Your task to perform on an android device: See recent photos Image 0: 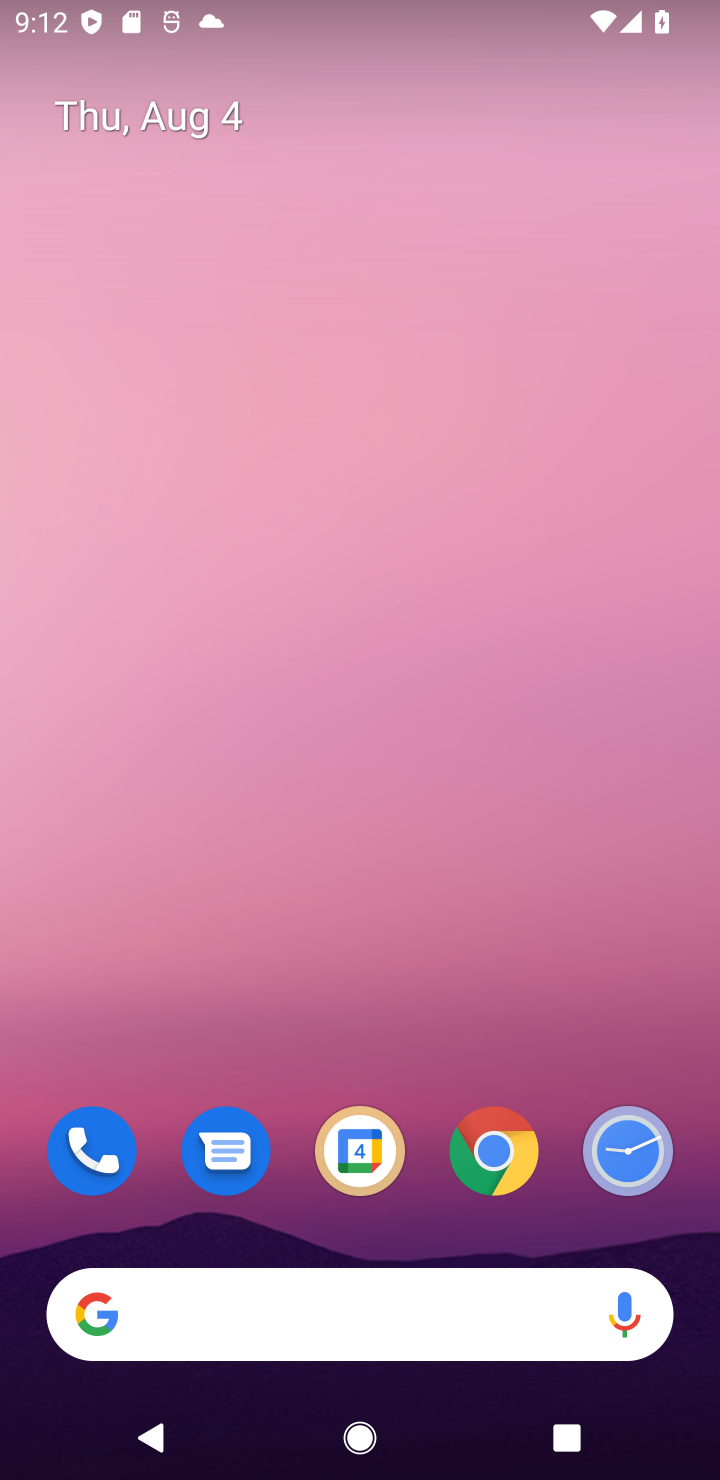
Step 0: drag from (444, 841) to (452, 25)
Your task to perform on an android device: See recent photos Image 1: 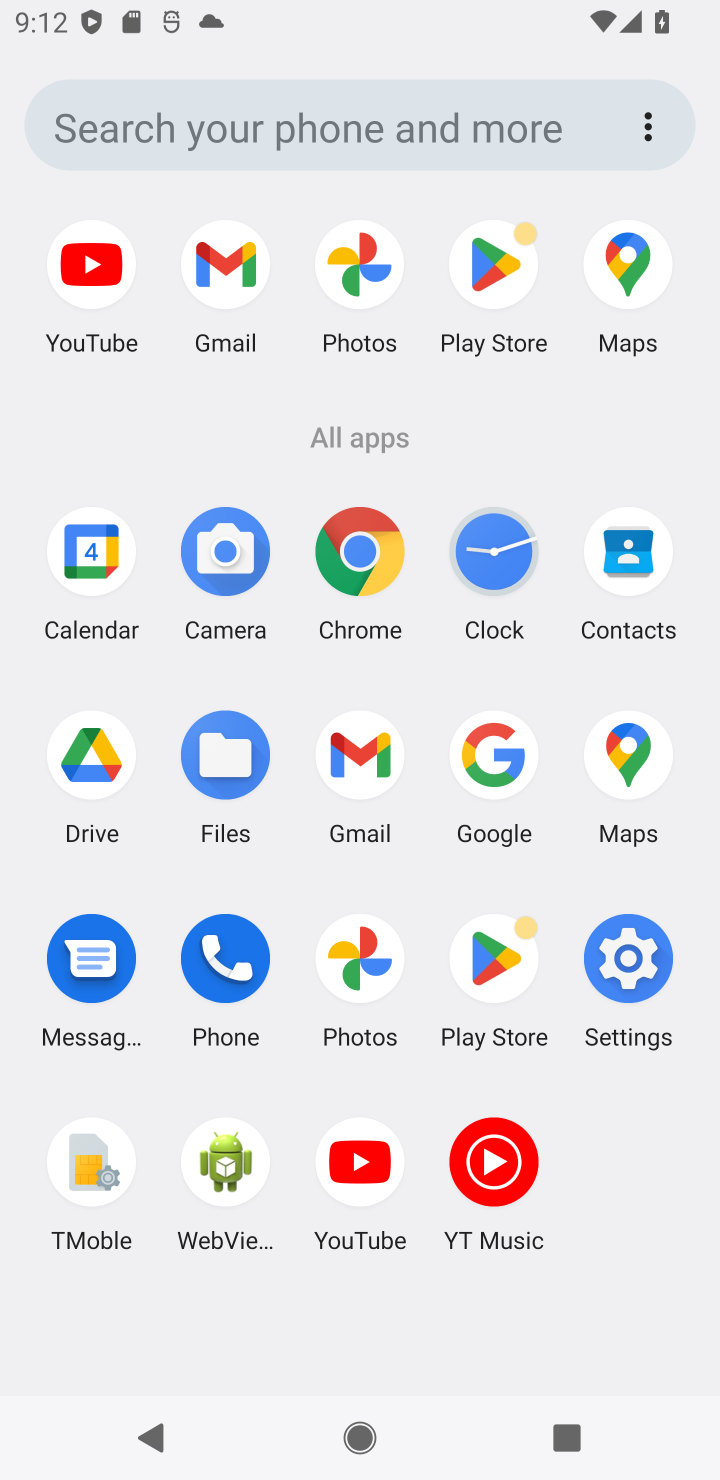
Step 1: click (366, 975)
Your task to perform on an android device: See recent photos Image 2: 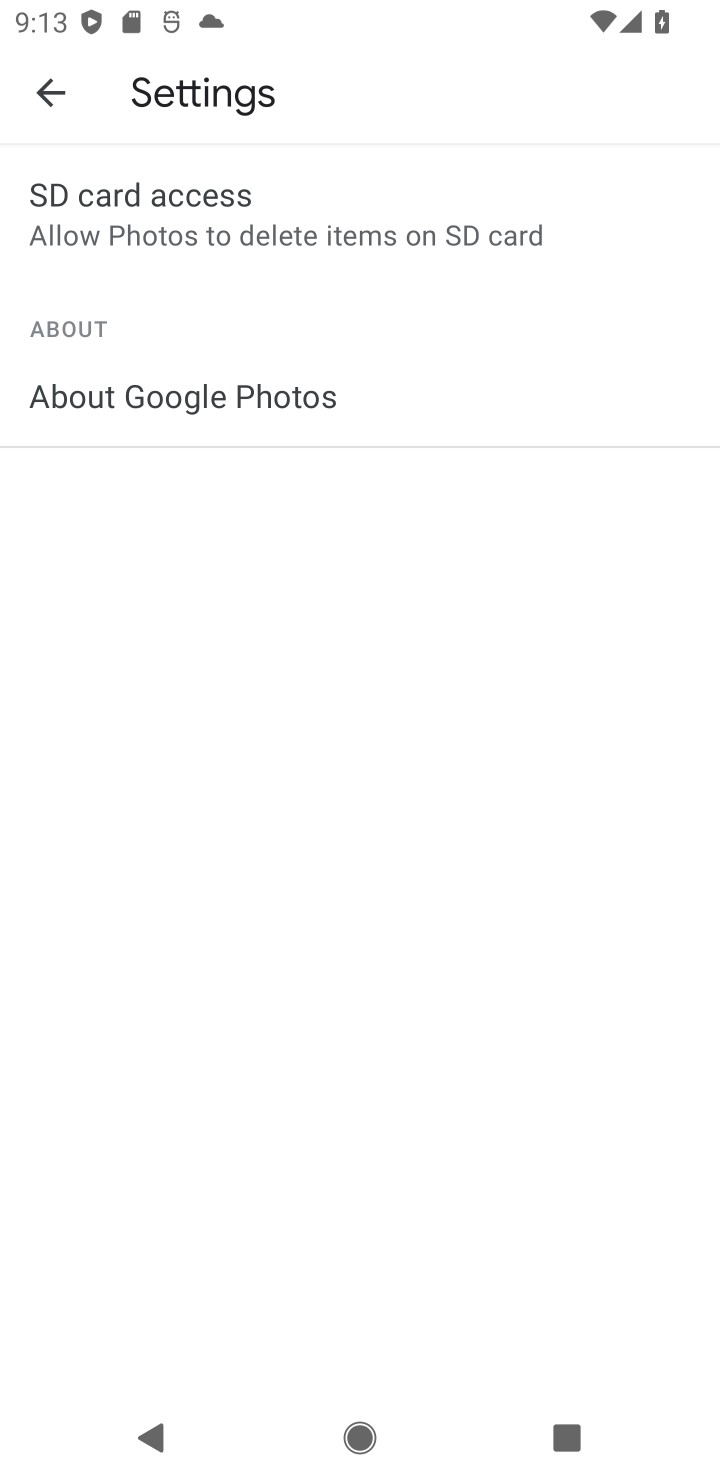
Step 2: click (42, 81)
Your task to perform on an android device: See recent photos Image 3: 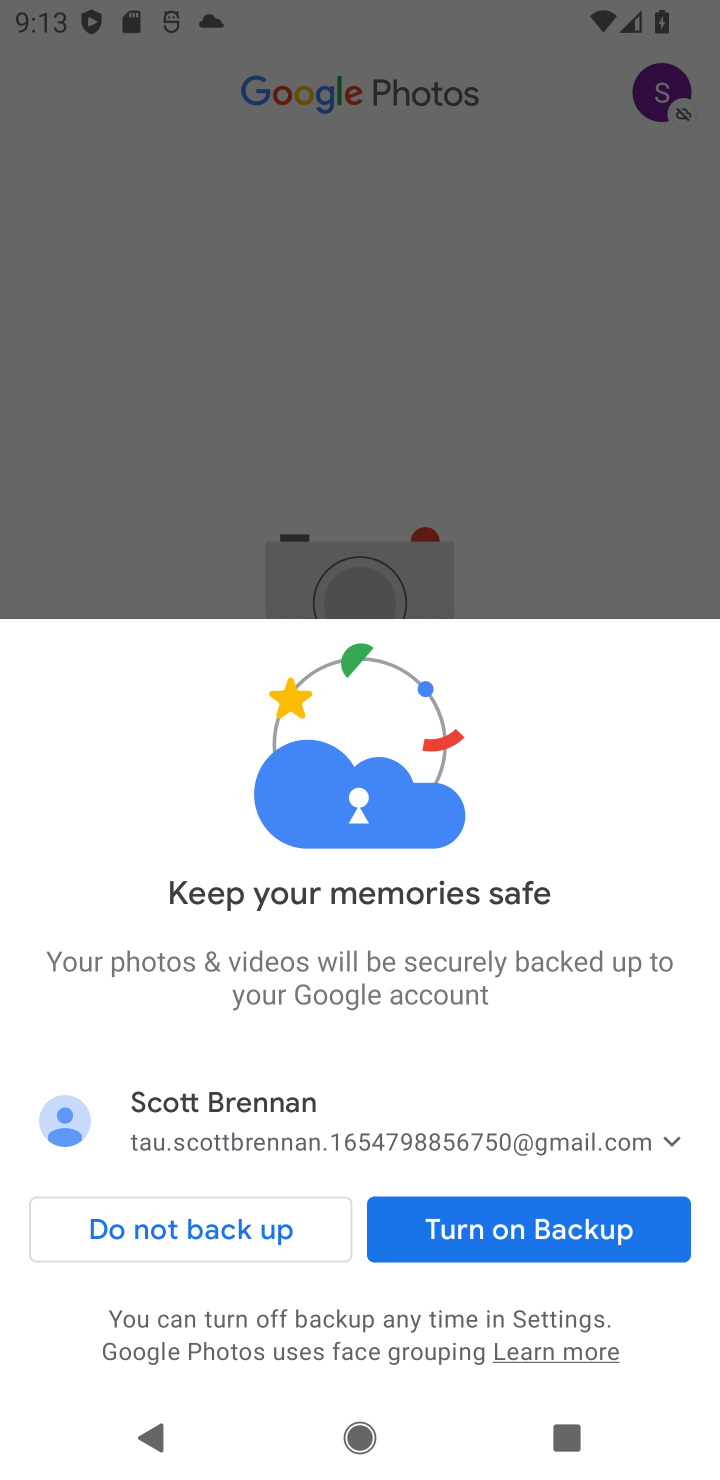
Step 3: click (256, 1228)
Your task to perform on an android device: See recent photos Image 4: 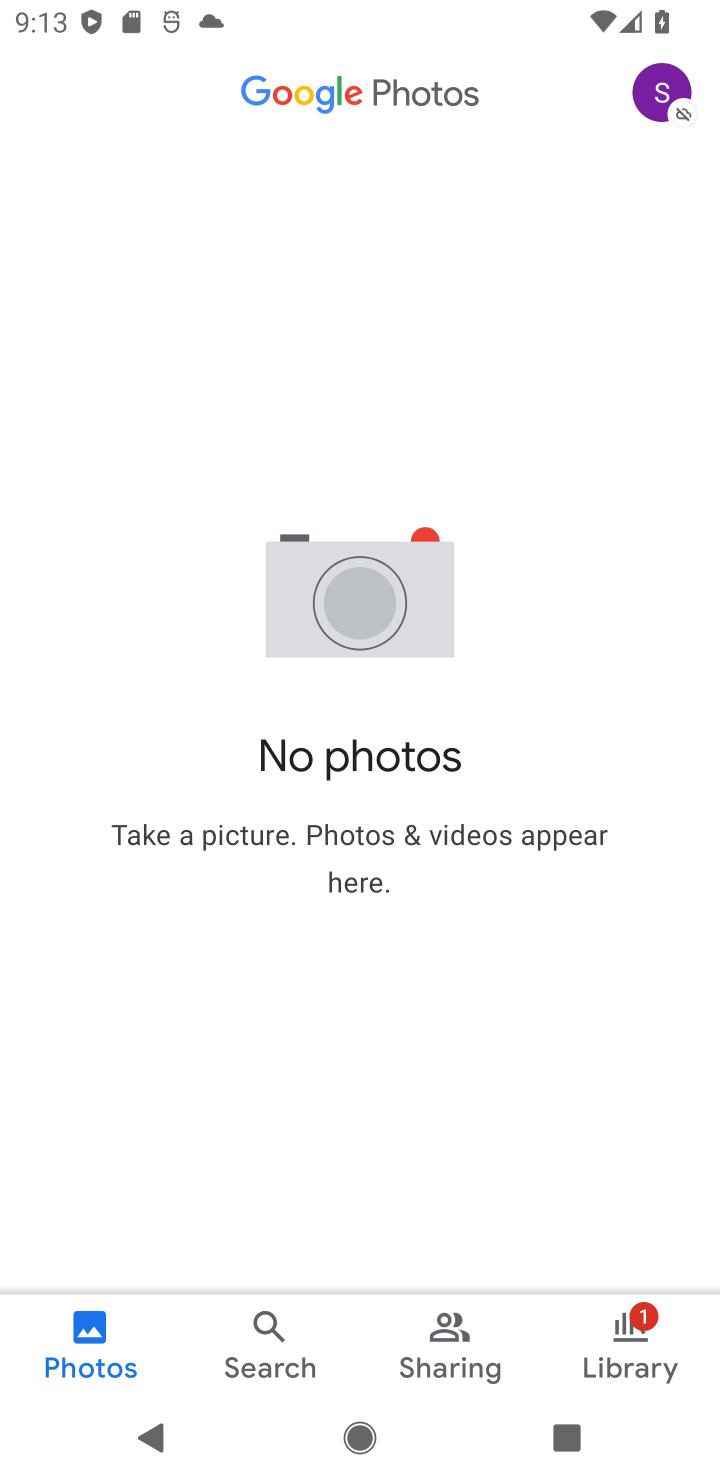
Step 4: task complete